Your task to perform on an android device: turn off notifications settings in the gmail app Image 0: 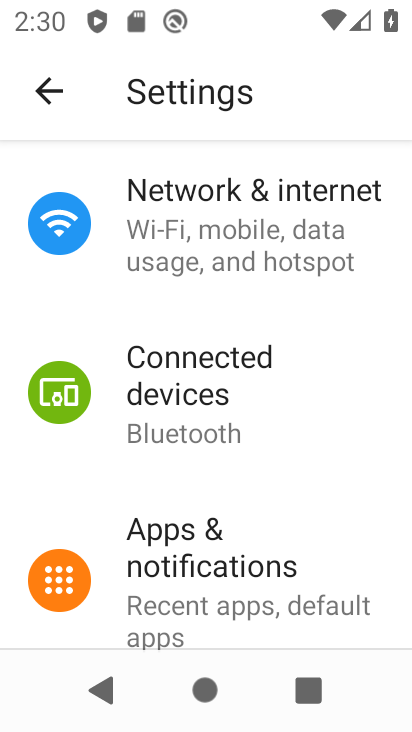
Step 0: press home button
Your task to perform on an android device: turn off notifications settings in the gmail app Image 1: 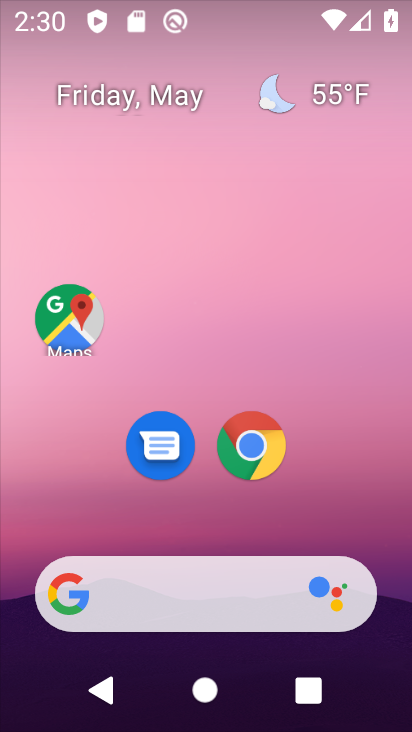
Step 1: drag from (376, 528) to (335, 177)
Your task to perform on an android device: turn off notifications settings in the gmail app Image 2: 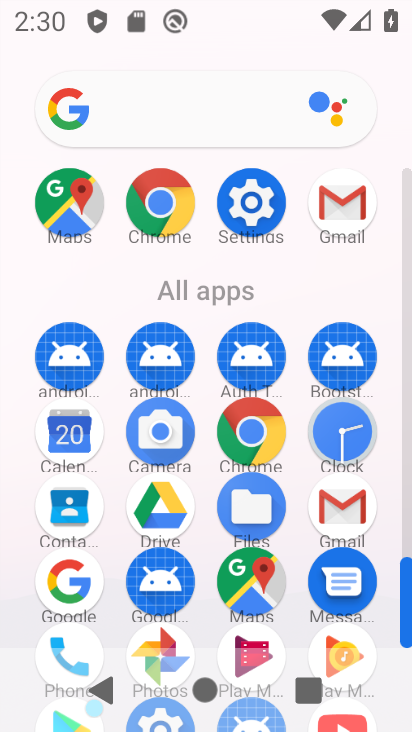
Step 2: click (355, 512)
Your task to perform on an android device: turn off notifications settings in the gmail app Image 3: 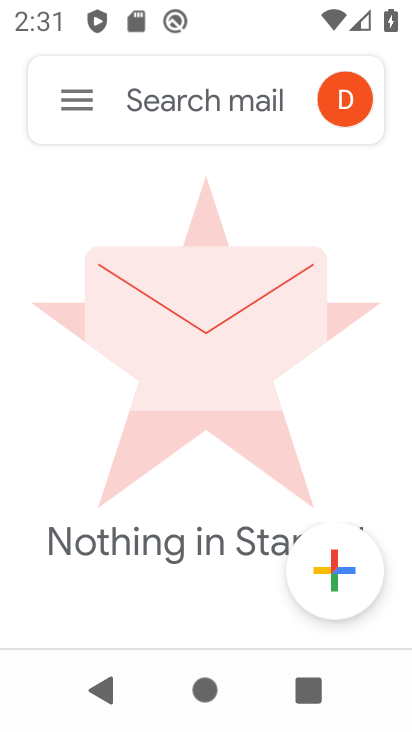
Step 3: click (87, 118)
Your task to perform on an android device: turn off notifications settings in the gmail app Image 4: 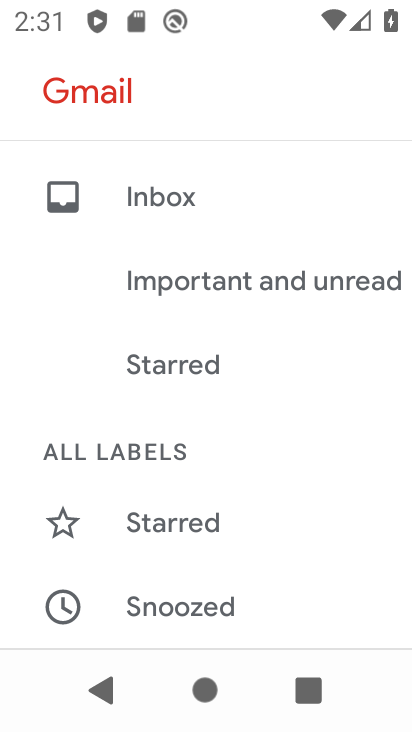
Step 4: drag from (247, 586) to (258, 255)
Your task to perform on an android device: turn off notifications settings in the gmail app Image 5: 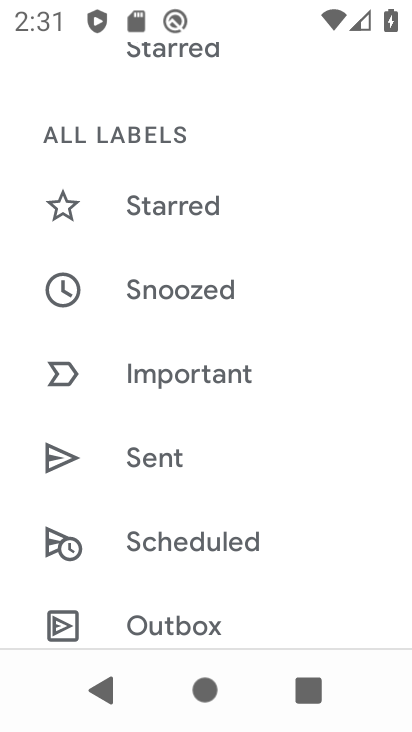
Step 5: drag from (272, 578) to (255, 266)
Your task to perform on an android device: turn off notifications settings in the gmail app Image 6: 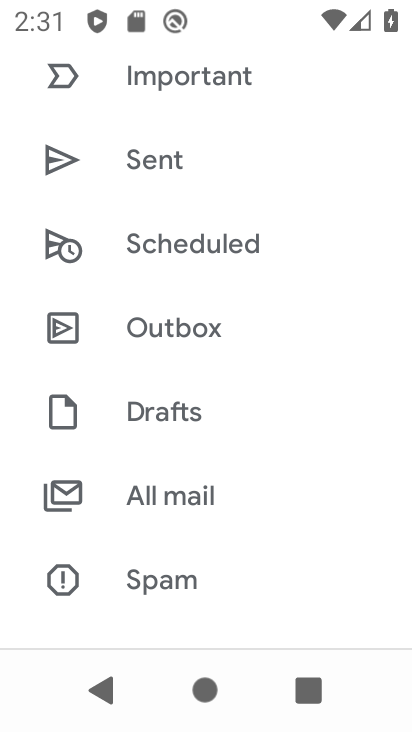
Step 6: drag from (269, 535) to (225, 279)
Your task to perform on an android device: turn off notifications settings in the gmail app Image 7: 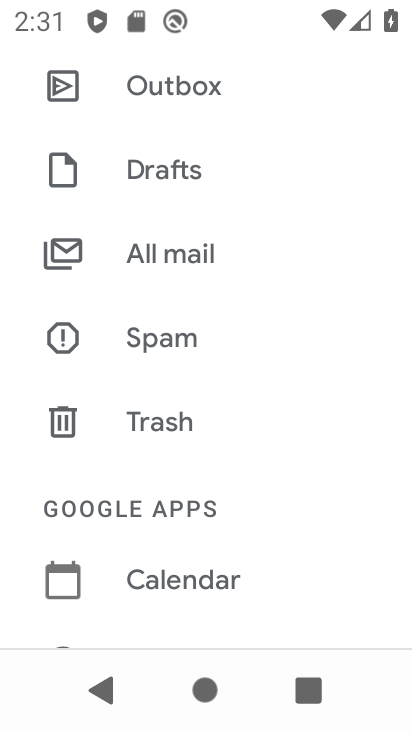
Step 7: drag from (194, 590) to (198, 235)
Your task to perform on an android device: turn off notifications settings in the gmail app Image 8: 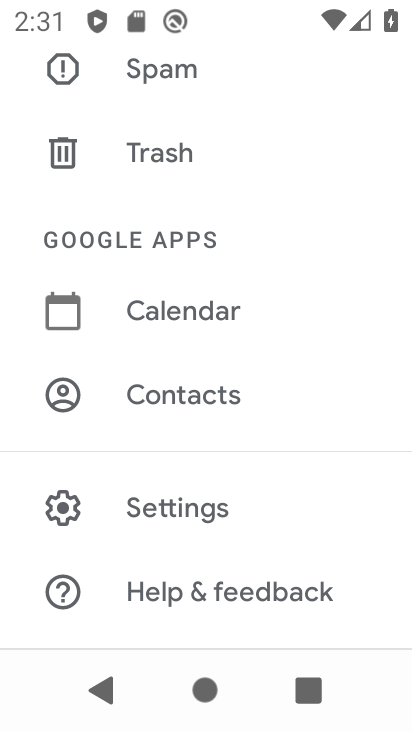
Step 8: click (232, 505)
Your task to perform on an android device: turn off notifications settings in the gmail app Image 9: 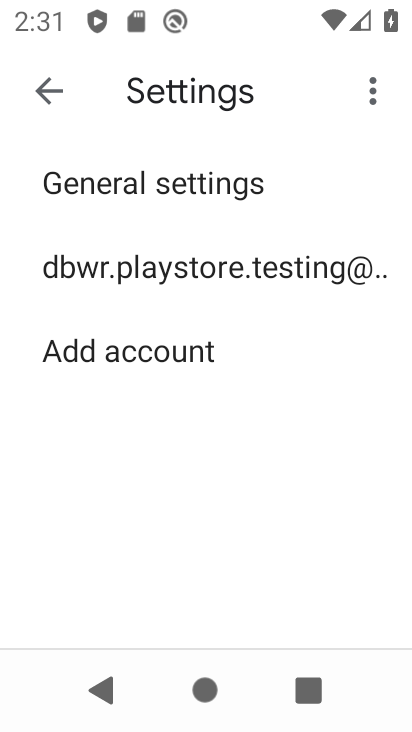
Step 9: click (149, 258)
Your task to perform on an android device: turn off notifications settings in the gmail app Image 10: 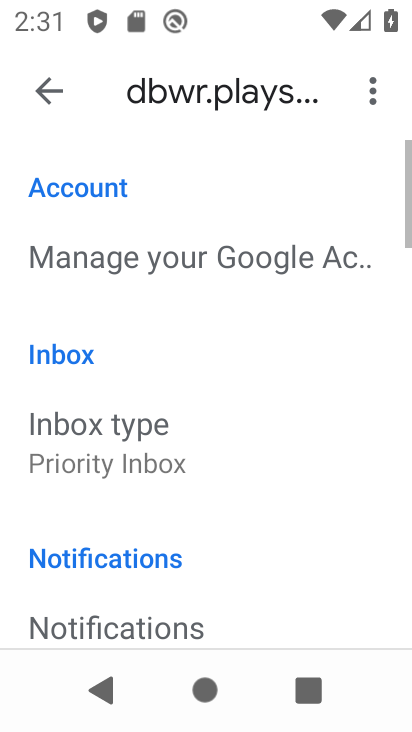
Step 10: drag from (209, 605) to (174, 247)
Your task to perform on an android device: turn off notifications settings in the gmail app Image 11: 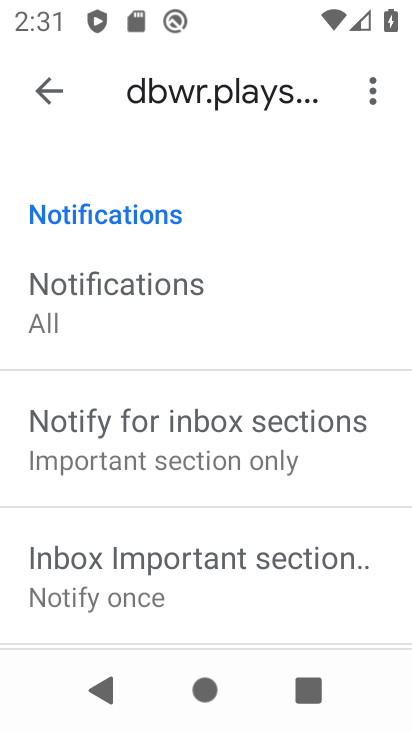
Step 11: click (130, 307)
Your task to perform on an android device: turn off notifications settings in the gmail app Image 12: 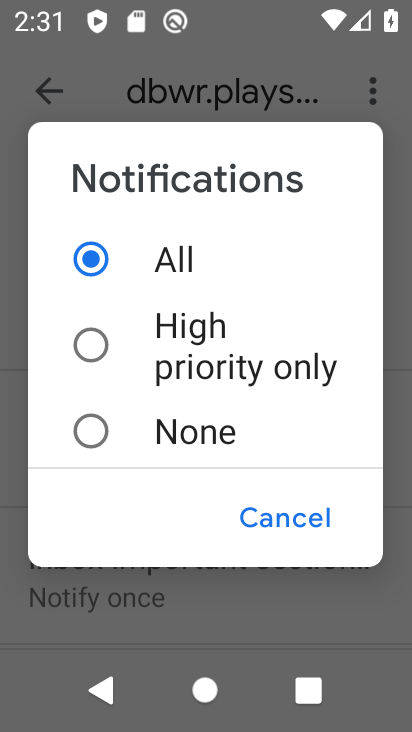
Step 12: click (80, 421)
Your task to perform on an android device: turn off notifications settings in the gmail app Image 13: 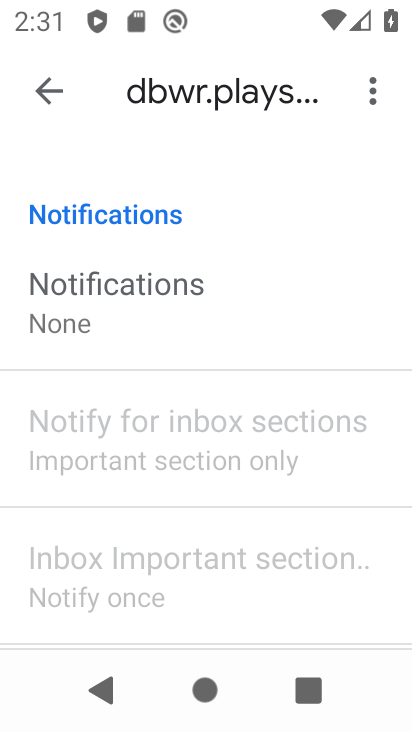
Step 13: task complete